Your task to perform on an android device: toggle notifications settings in the gmail app Image 0: 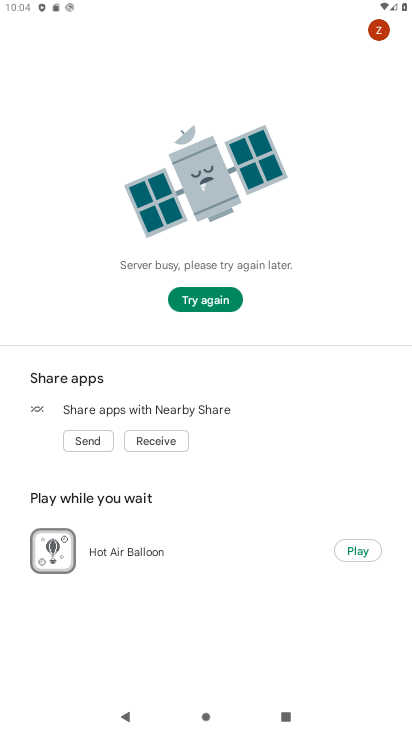
Step 0: press home button
Your task to perform on an android device: toggle notifications settings in the gmail app Image 1: 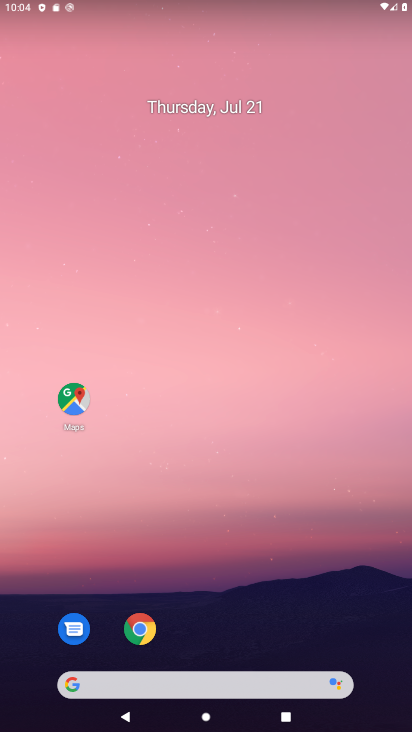
Step 1: drag from (252, 634) to (222, 103)
Your task to perform on an android device: toggle notifications settings in the gmail app Image 2: 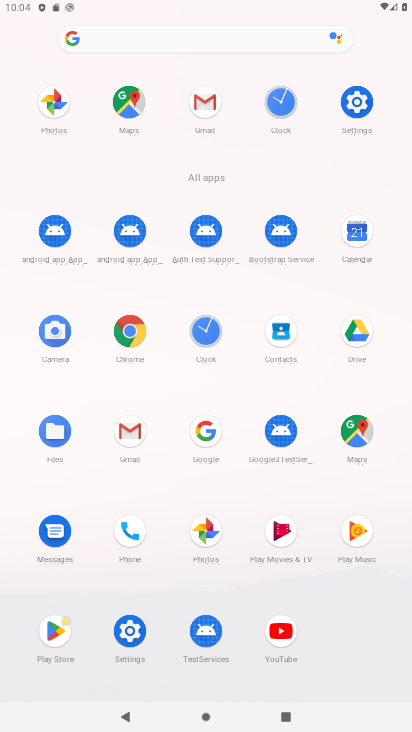
Step 2: click (361, 100)
Your task to perform on an android device: toggle notifications settings in the gmail app Image 3: 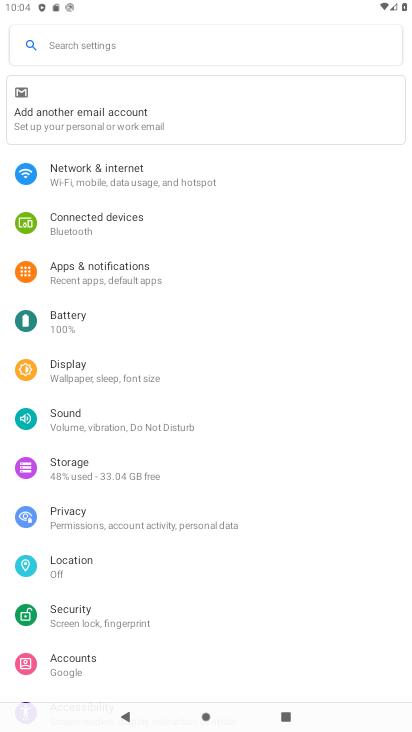
Step 3: click (117, 268)
Your task to perform on an android device: toggle notifications settings in the gmail app Image 4: 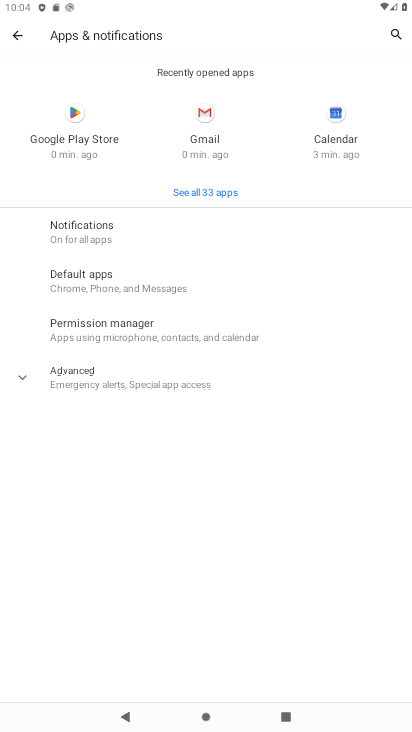
Step 4: click (78, 219)
Your task to perform on an android device: toggle notifications settings in the gmail app Image 5: 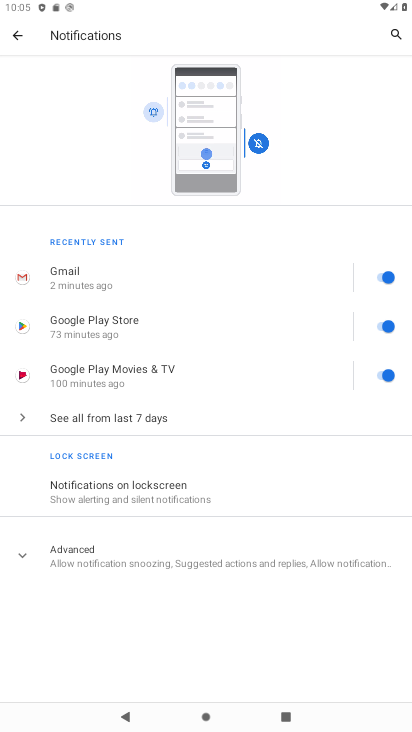
Step 5: click (250, 140)
Your task to perform on an android device: toggle notifications settings in the gmail app Image 6: 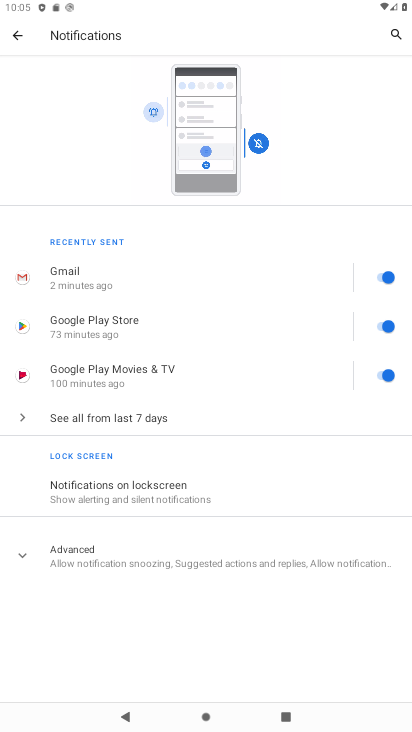
Step 6: click (250, 140)
Your task to perform on an android device: toggle notifications settings in the gmail app Image 7: 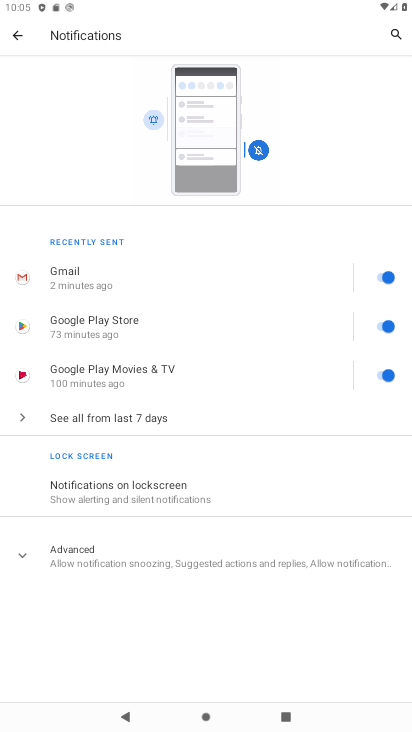
Step 7: task complete